Your task to perform on an android device: Open calendar and show me the second week of next month Image 0: 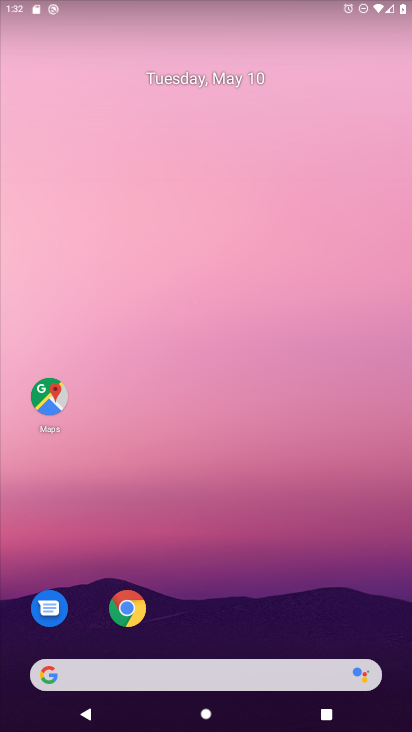
Step 0: drag from (380, 574) to (335, 85)
Your task to perform on an android device: Open calendar and show me the second week of next month Image 1: 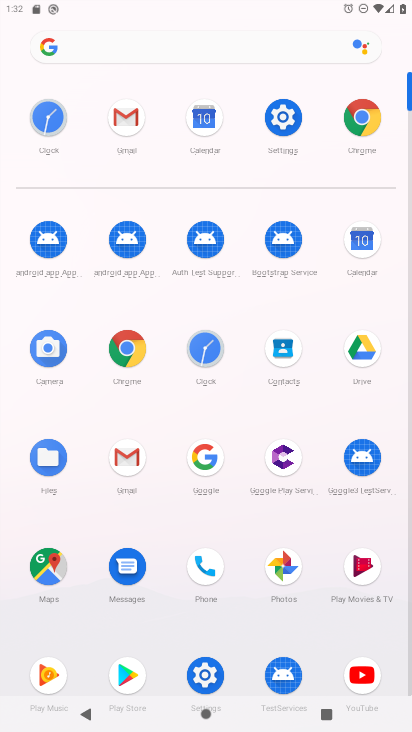
Step 1: click (354, 249)
Your task to perform on an android device: Open calendar and show me the second week of next month Image 2: 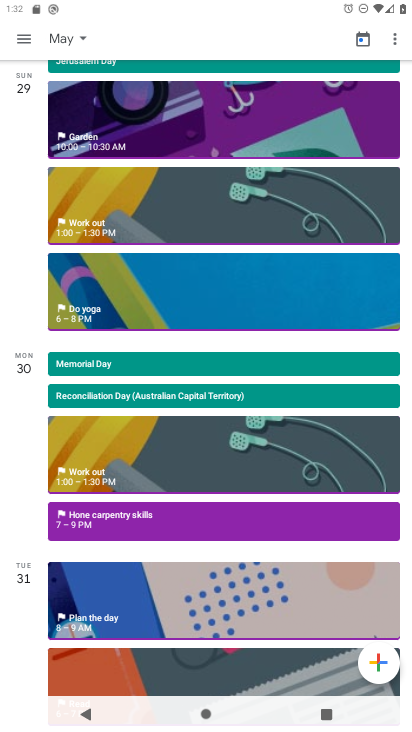
Step 2: click (57, 34)
Your task to perform on an android device: Open calendar and show me the second week of next month Image 3: 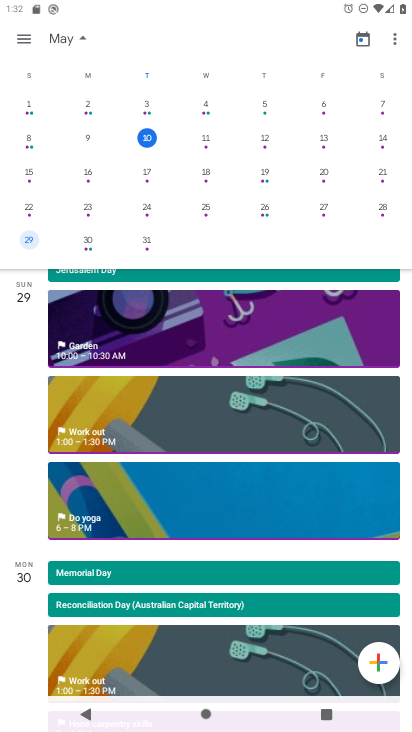
Step 3: drag from (348, 159) to (0, 158)
Your task to perform on an android device: Open calendar and show me the second week of next month Image 4: 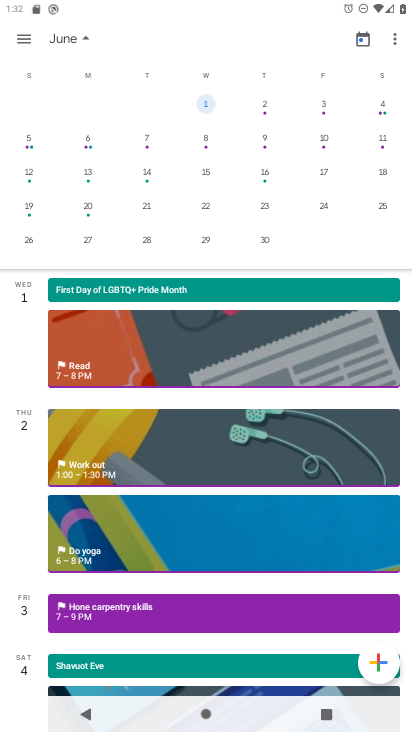
Step 4: click (30, 143)
Your task to perform on an android device: Open calendar and show me the second week of next month Image 5: 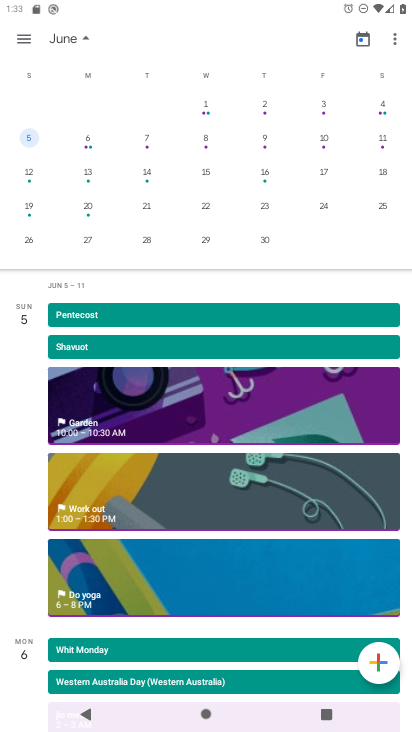
Step 5: task complete